Your task to perform on an android device: Open notification settings Image 0: 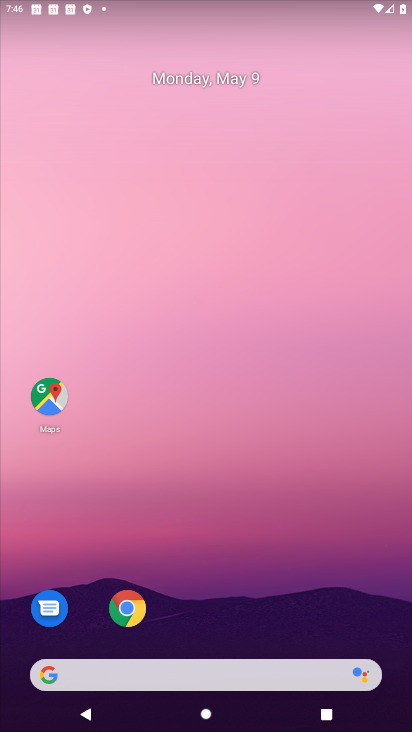
Step 0: drag from (279, 708) to (328, 29)
Your task to perform on an android device: Open notification settings Image 1: 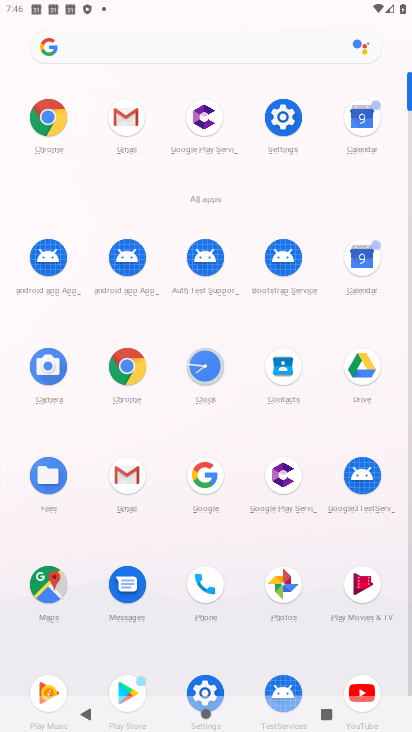
Step 1: click (278, 105)
Your task to perform on an android device: Open notification settings Image 2: 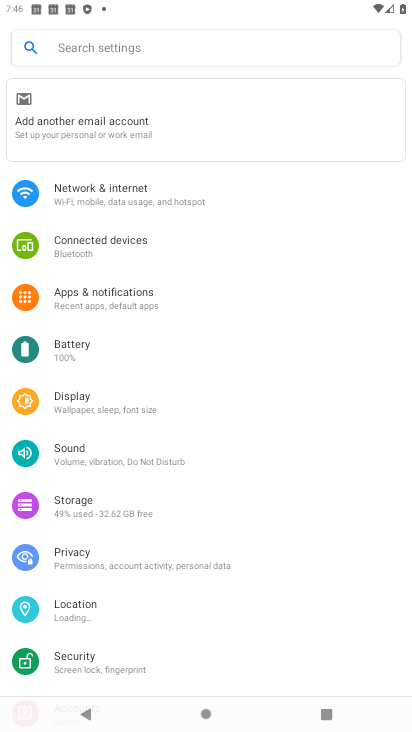
Step 2: click (123, 304)
Your task to perform on an android device: Open notification settings Image 3: 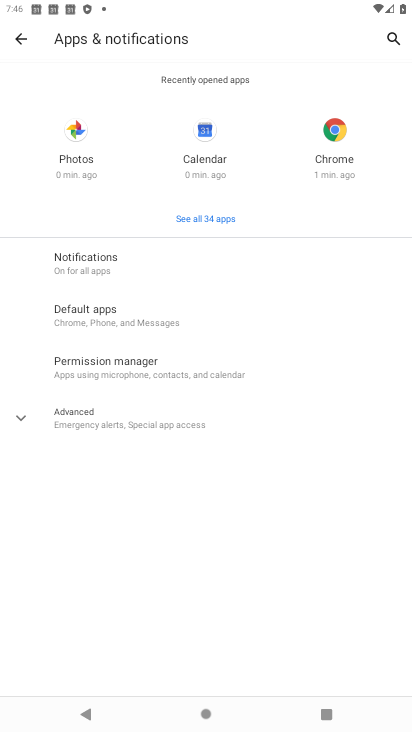
Step 3: task complete